Your task to perform on an android device: turn on wifi Image 0: 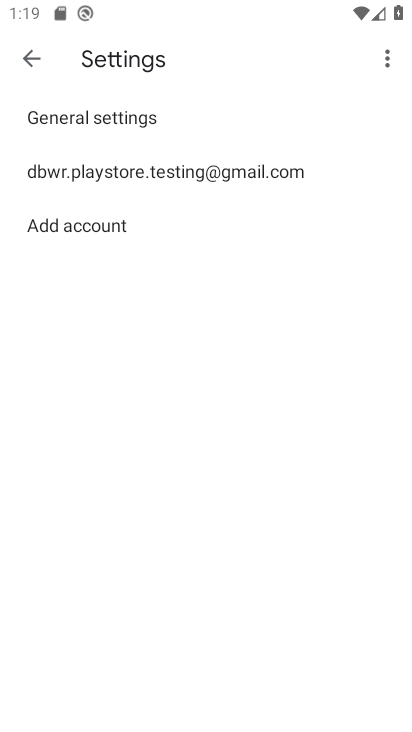
Step 0: press back button
Your task to perform on an android device: turn on wifi Image 1: 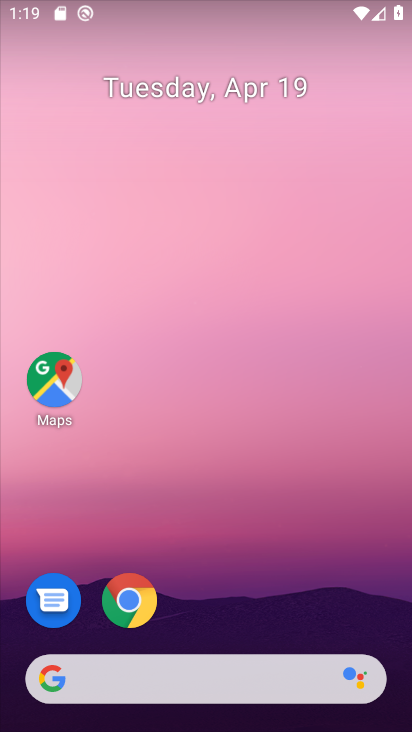
Step 1: drag from (310, 565) to (233, 6)
Your task to perform on an android device: turn on wifi Image 2: 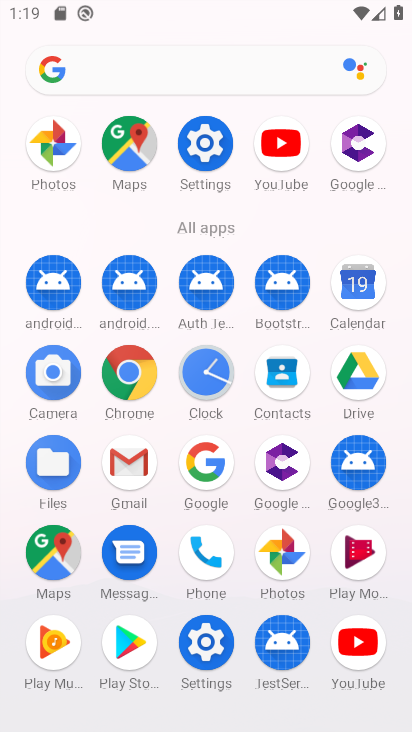
Step 2: click (209, 142)
Your task to perform on an android device: turn on wifi Image 3: 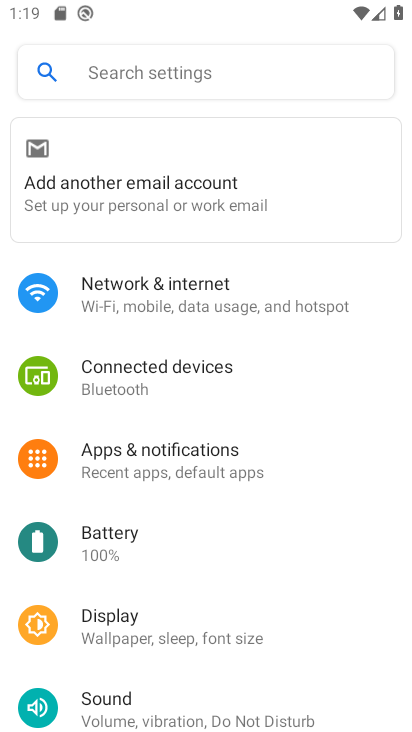
Step 3: click (187, 283)
Your task to perform on an android device: turn on wifi Image 4: 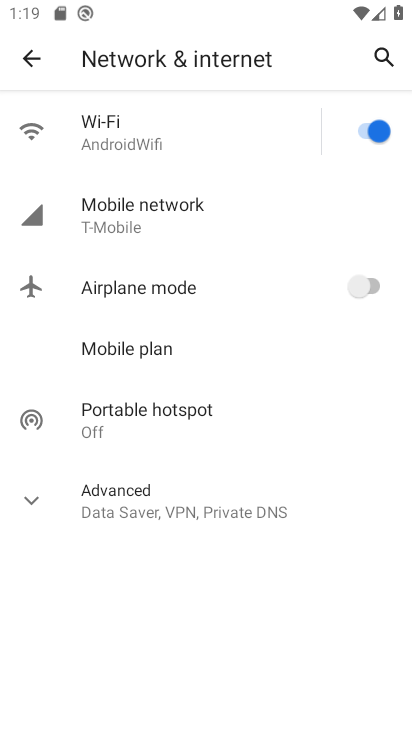
Step 4: task complete